Your task to perform on an android device: toggle notification dots Image 0: 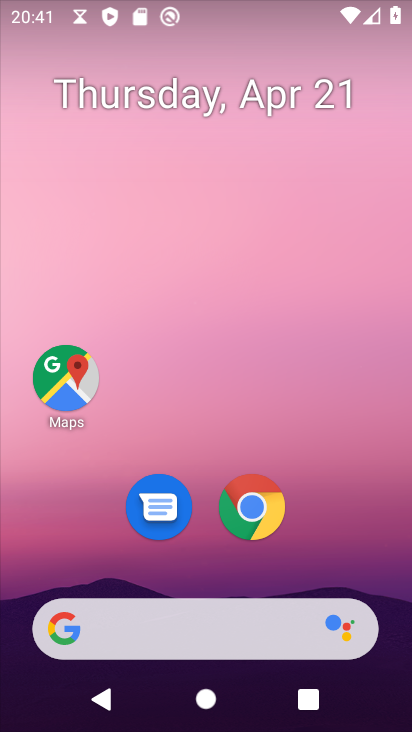
Step 0: drag from (210, 456) to (270, 116)
Your task to perform on an android device: toggle notification dots Image 1: 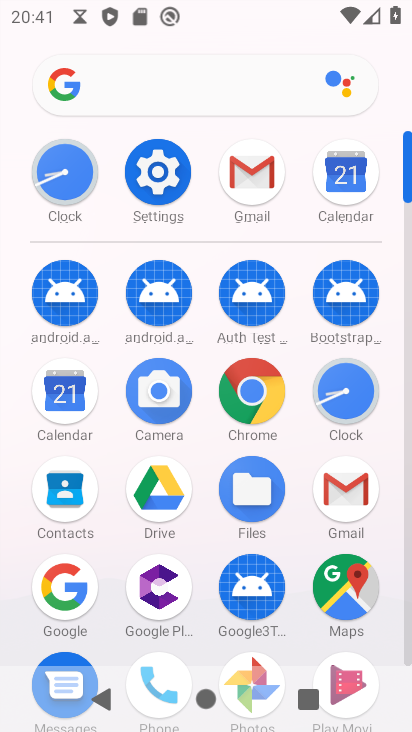
Step 1: click (157, 158)
Your task to perform on an android device: toggle notification dots Image 2: 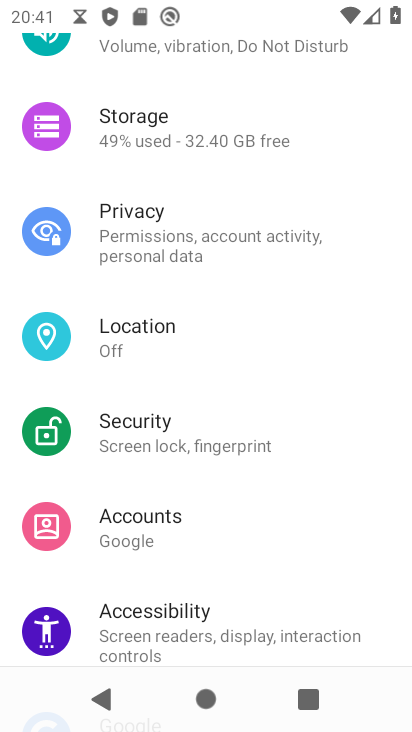
Step 2: drag from (241, 189) to (187, 656)
Your task to perform on an android device: toggle notification dots Image 3: 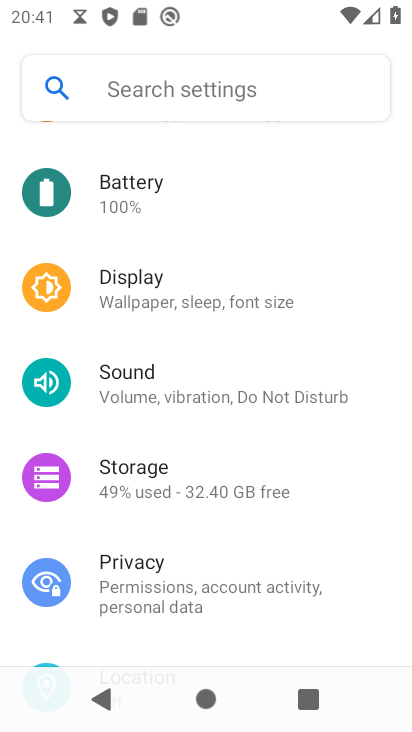
Step 3: drag from (224, 309) to (179, 688)
Your task to perform on an android device: toggle notification dots Image 4: 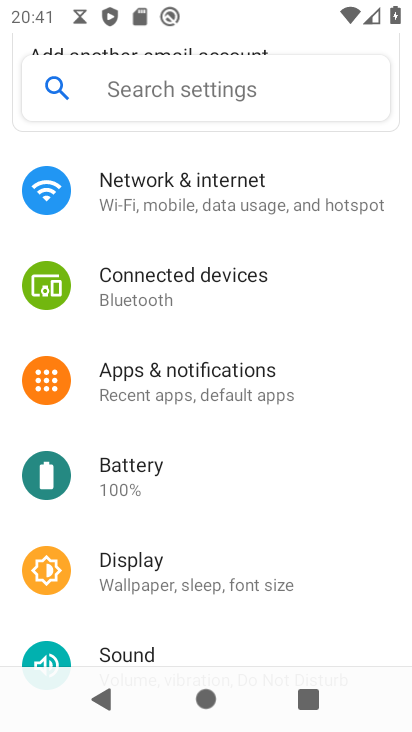
Step 4: click (190, 390)
Your task to perform on an android device: toggle notification dots Image 5: 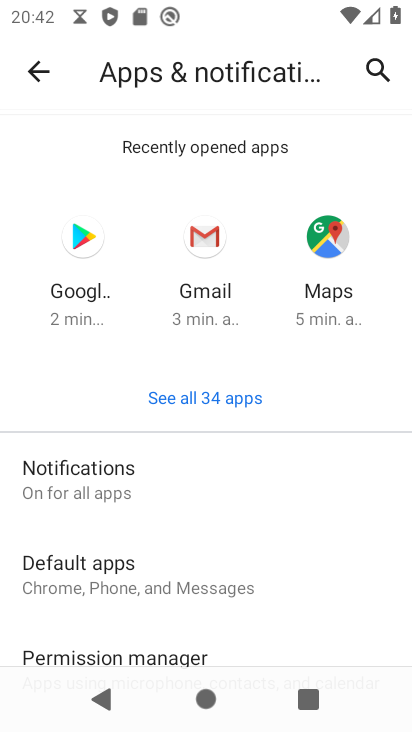
Step 5: click (138, 463)
Your task to perform on an android device: toggle notification dots Image 6: 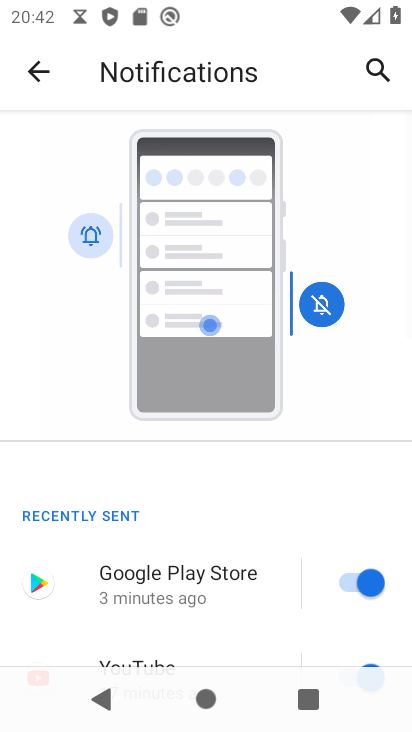
Step 6: drag from (173, 586) to (331, 84)
Your task to perform on an android device: toggle notification dots Image 7: 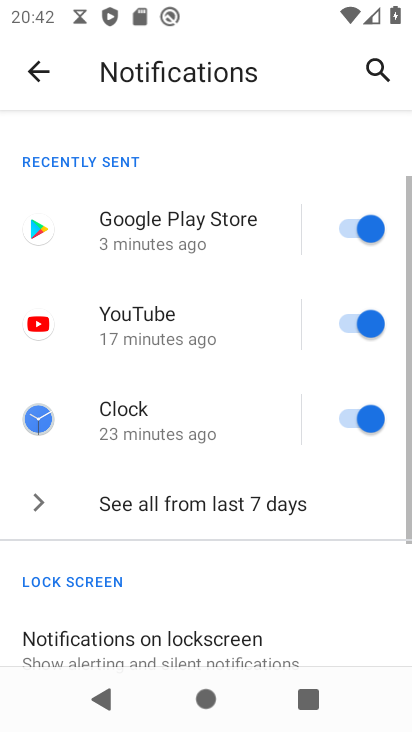
Step 7: drag from (201, 486) to (250, 93)
Your task to perform on an android device: toggle notification dots Image 8: 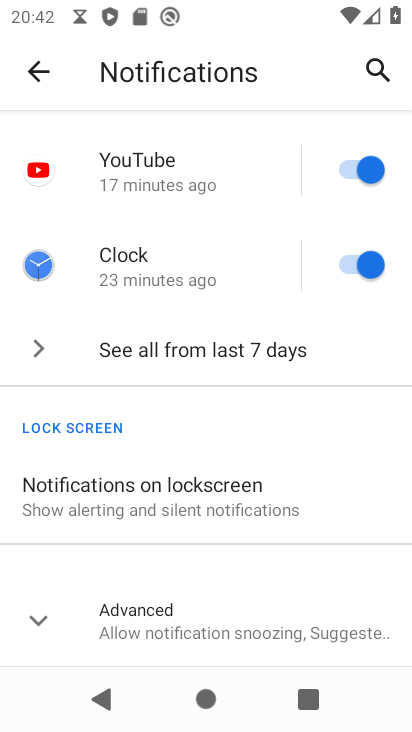
Step 8: click (193, 610)
Your task to perform on an android device: toggle notification dots Image 9: 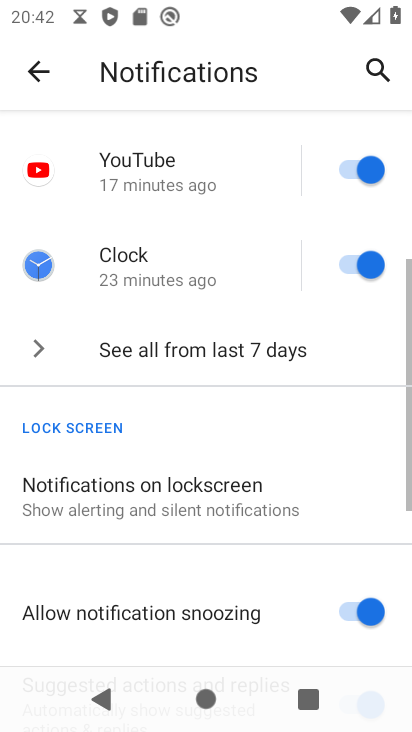
Step 9: drag from (222, 575) to (264, 111)
Your task to perform on an android device: toggle notification dots Image 10: 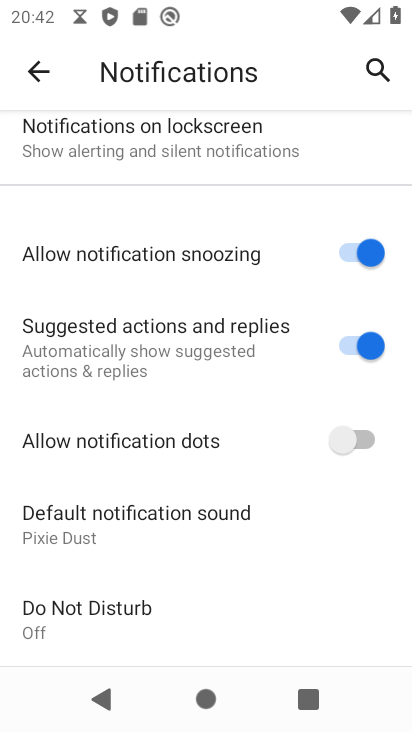
Step 10: click (356, 434)
Your task to perform on an android device: toggle notification dots Image 11: 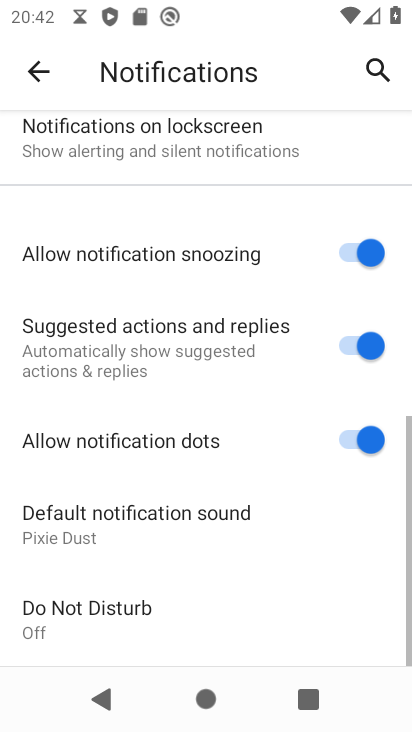
Step 11: task complete